Your task to perform on an android device: View the shopping cart on newegg. Image 0: 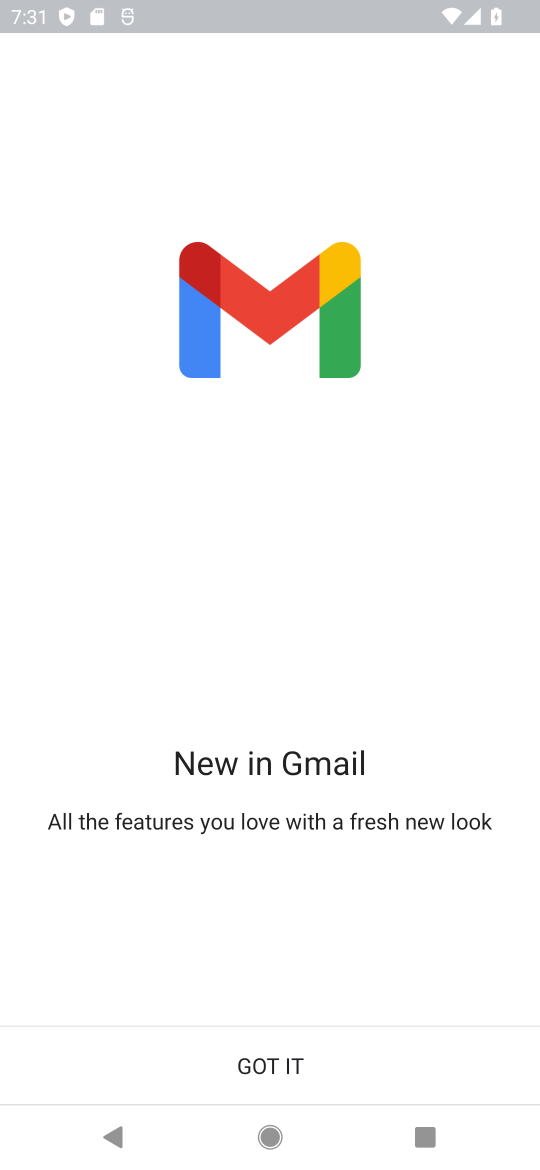
Step 0: press home button
Your task to perform on an android device: View the shopping cart on newegg. Image 1: 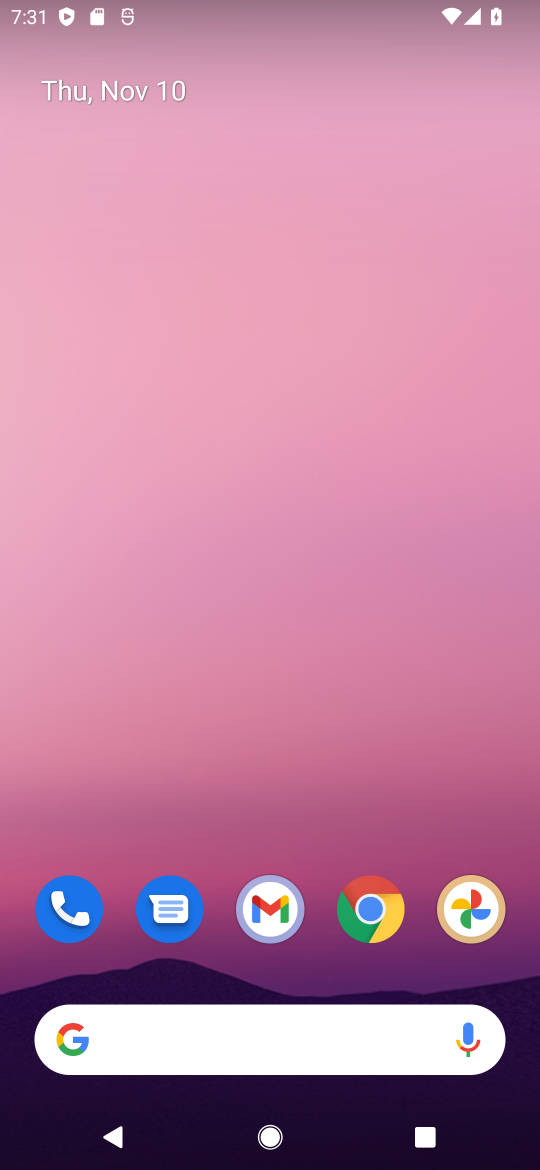
Step 1: drag from (313, 1007) to (302, 333)
Your task to perform on an android device: View the shopping cart on newegg. Image 2: 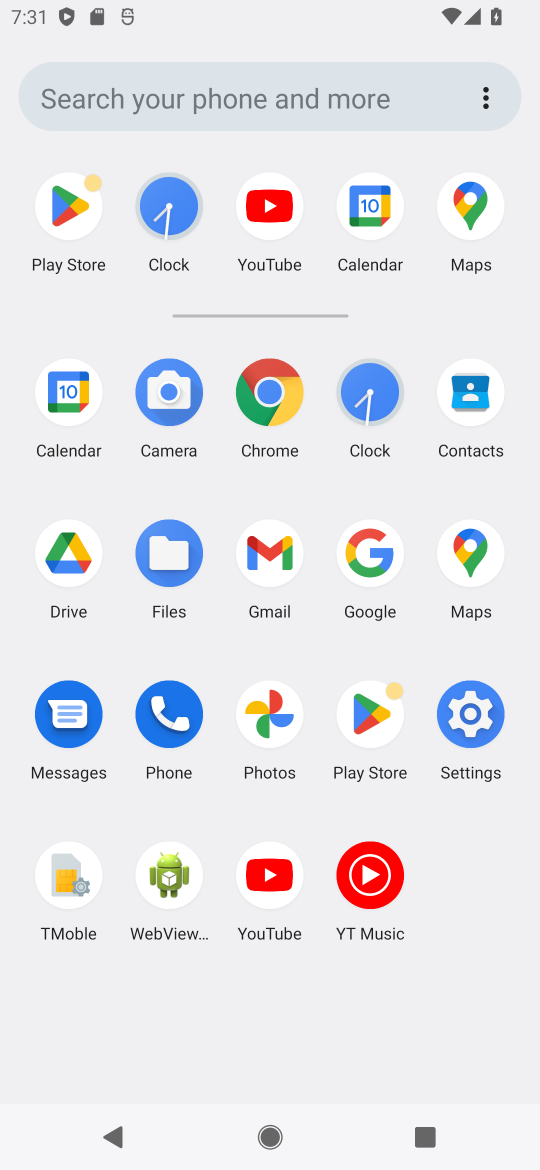
Step 2: click (361, 539)
Your task to perform on an android device: View the shopping cart on newegg. Image 3: 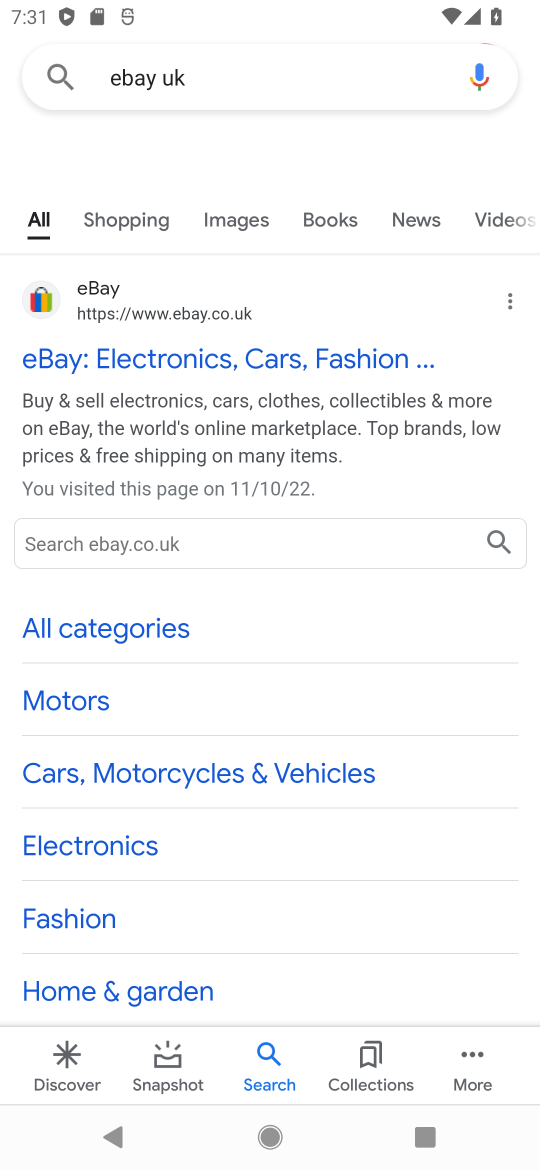
Step 3: click (192, 73)
Your task to perform on an android device: View the shopping cart on newegg. Image 4: 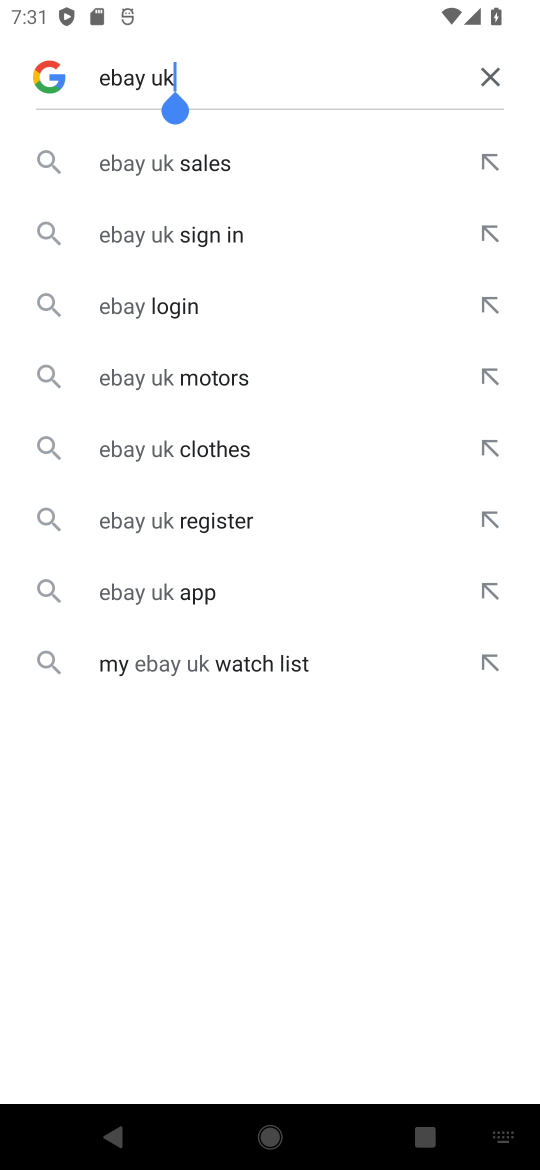
Step 4: click (480, 73)
Your task to perform on an android device: View the shopping cart on newegg. Image 5: 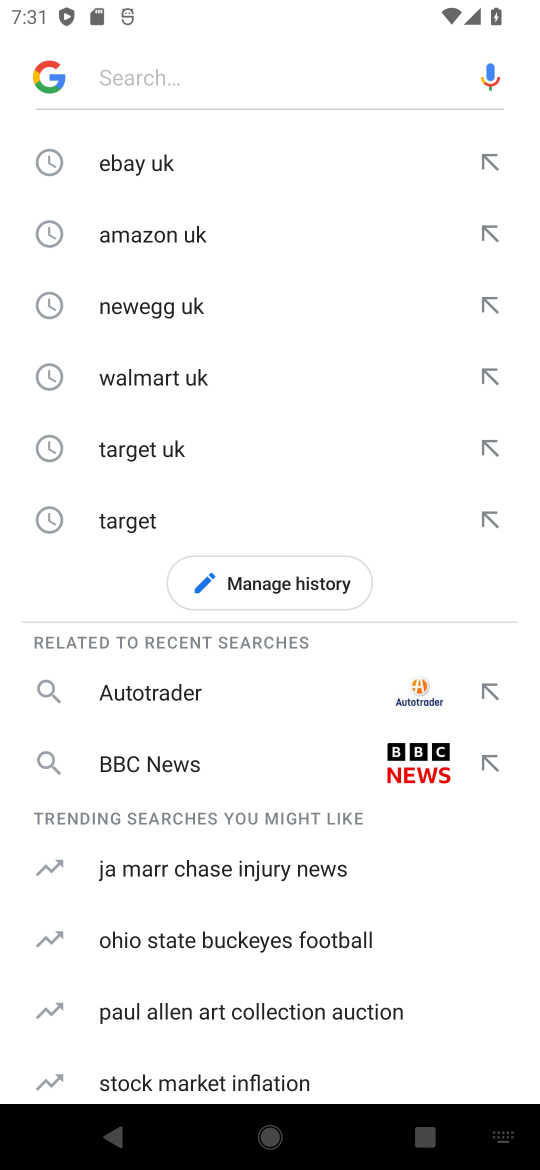
Step 5: click (149, 306)
Your task to perform on an android device: View the shopping cart on newegg. Image 6: 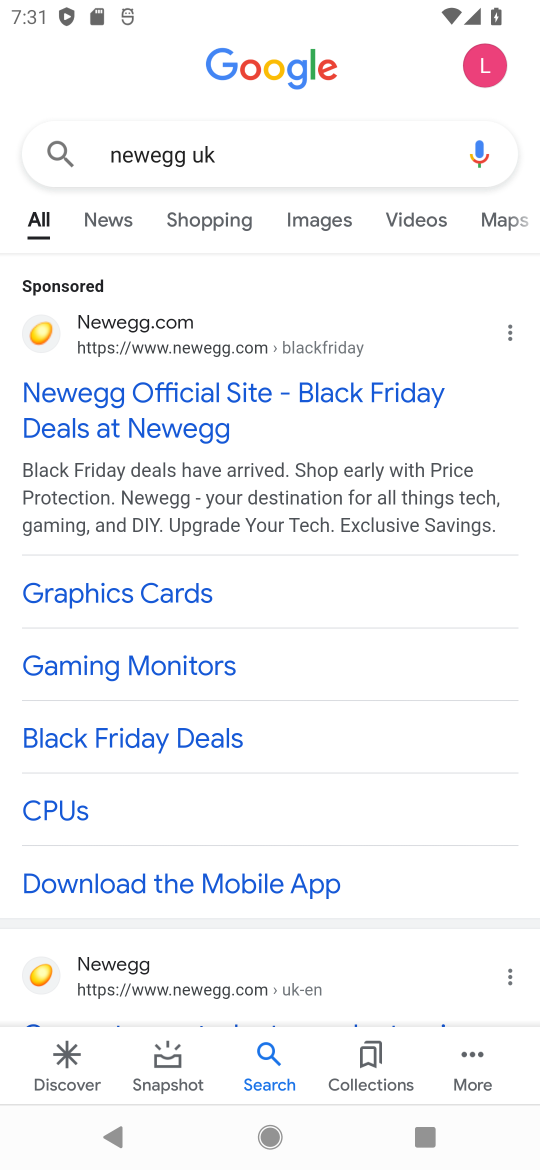
Step 6: click (46, 336)
Your task to perform on an android device: View the shopping cart on newegg. Image 7: 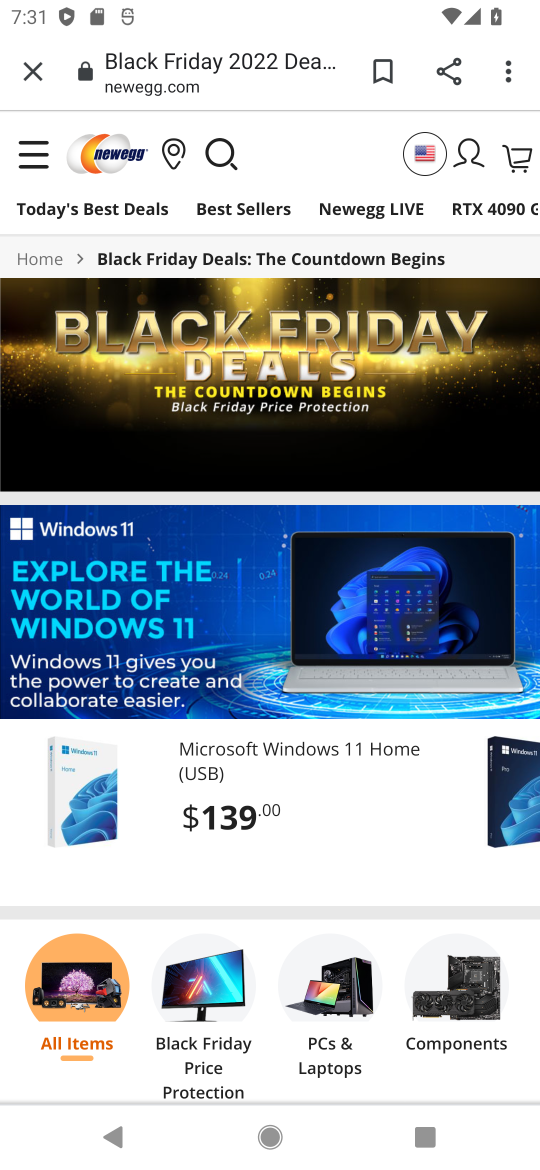
Step 7: click (513, 157)
Your task to perform on an android device: View the shopping cart on newegg. Image 8: 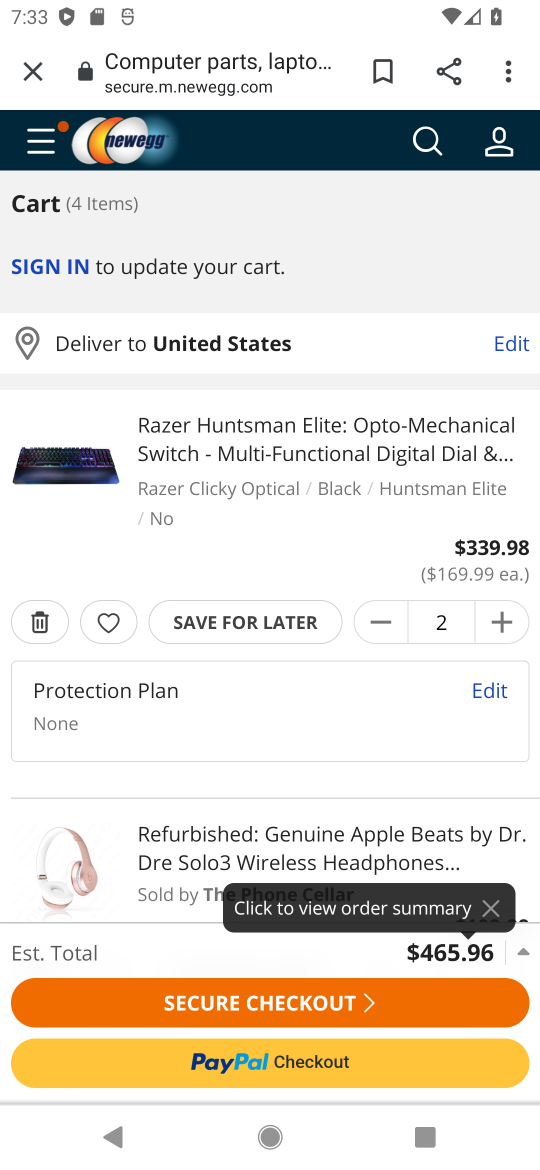
Step 8: task complete